Your task to perform on an android device: Go to ESPN.com Image 0: 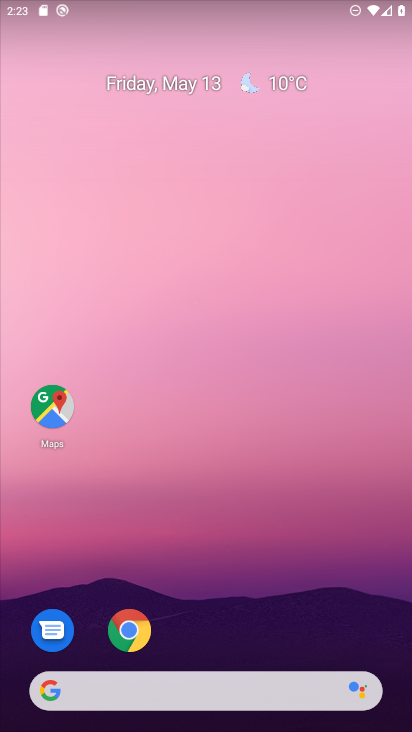
Step 0: press home button
Your task to perform on an android device: Go to ESPN.com Image 1: 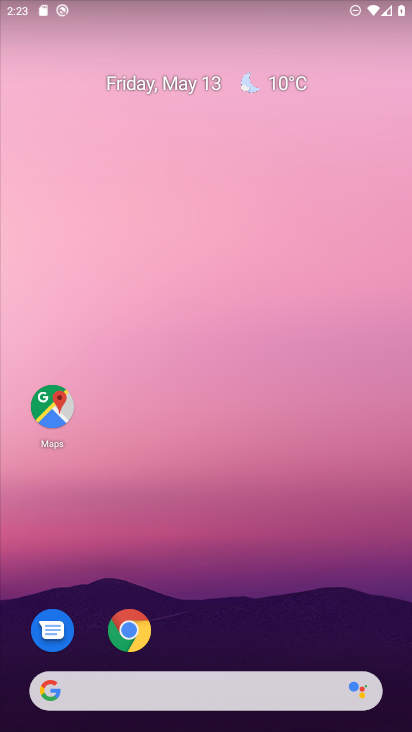
Step 1: click (125, 634)
Your task to perform on an android device: Go to ESPN.com Image 2: 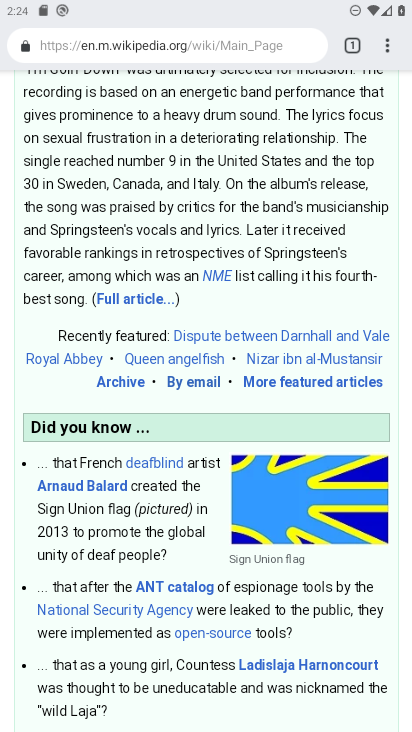
Step 2: click (352, 40)
Your task to perform on an android device: Go to ESPN.com Image 3: 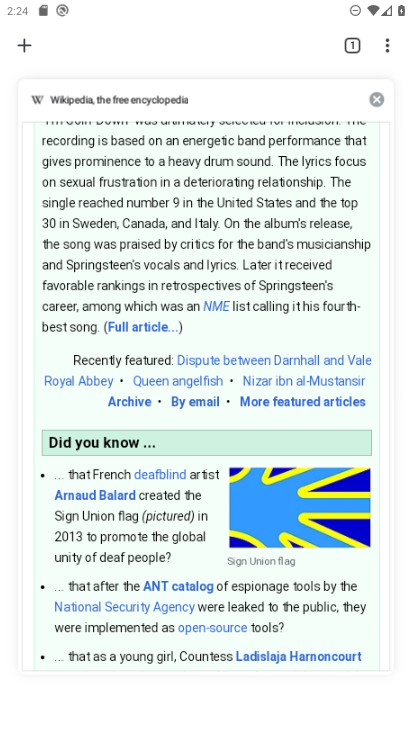
Step 3: click (376, 97)
Your task to perform on an android device: Go to ESPN.com Image 4: 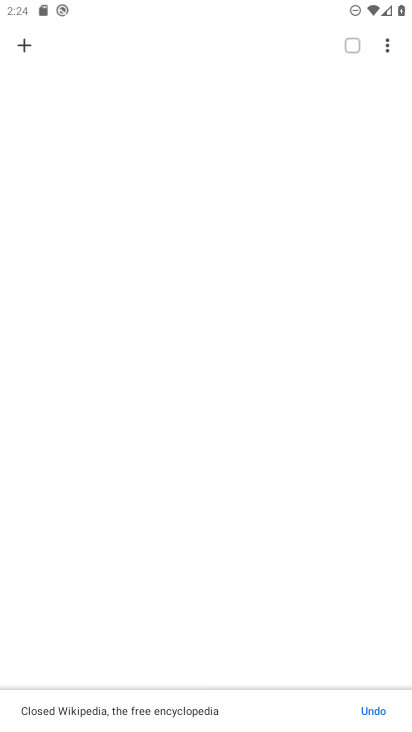
Step 4: click (34, 49)
Your task to perform on an android device: Go to ESPN.com Image 5: 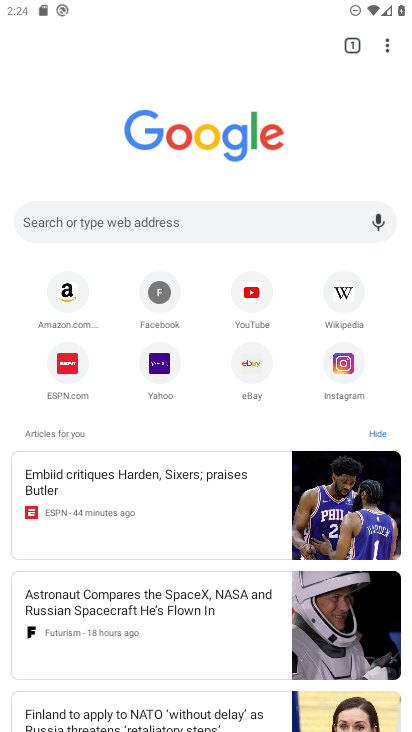
Step 5: click (59, 363)
Your task to perform on an android device: Go to ESPN.com Image 6: 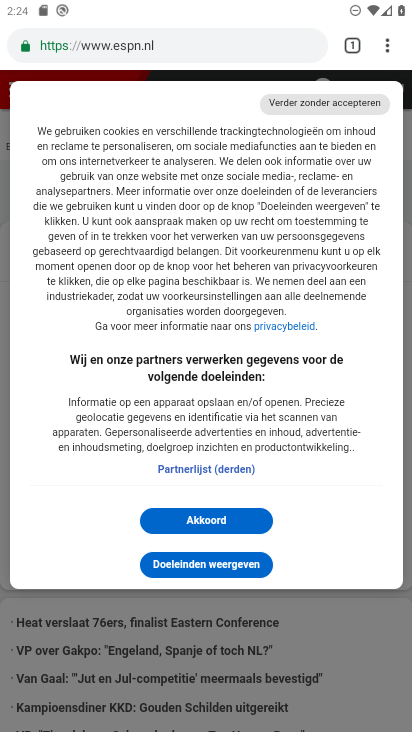
Step 6: click (210, 518)
Your task to perform on an android device: Go to ESPN.com Image 7: 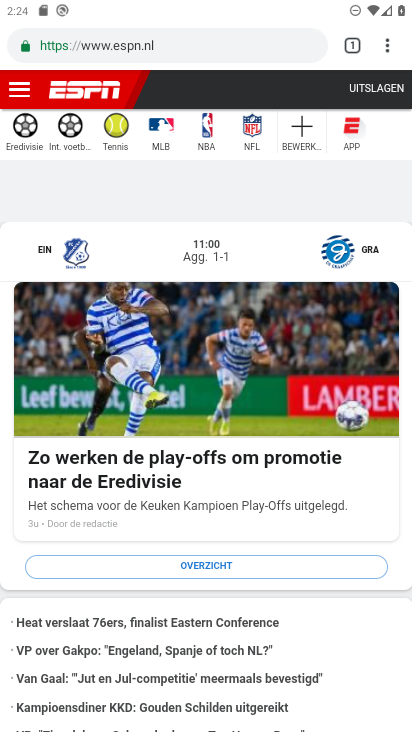
Step 7: task complete